Your task to perform on an android device: turn notification dots on Image 0: 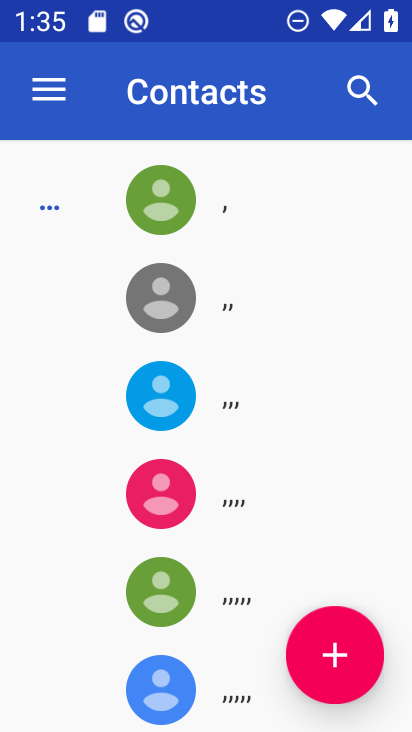
Step 0: press home button
Your task to perform on an android device: turn notification dots on Image 1: 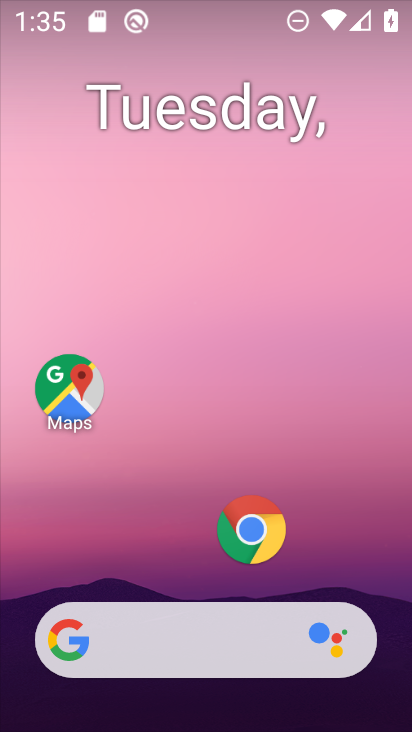
Step 1: drag from (198, 665) to (183, 36)
Your task to perform on an android device: turn notification dots on Image 2: 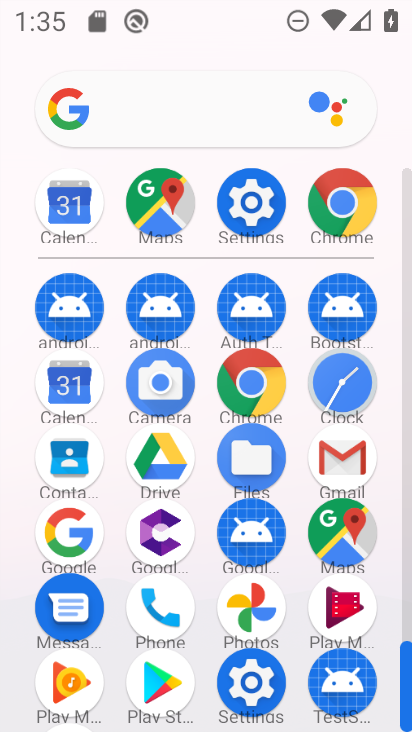
Step 2: click (255, 194)
Your task to perform on an android device: turn notification dots on Image 3: 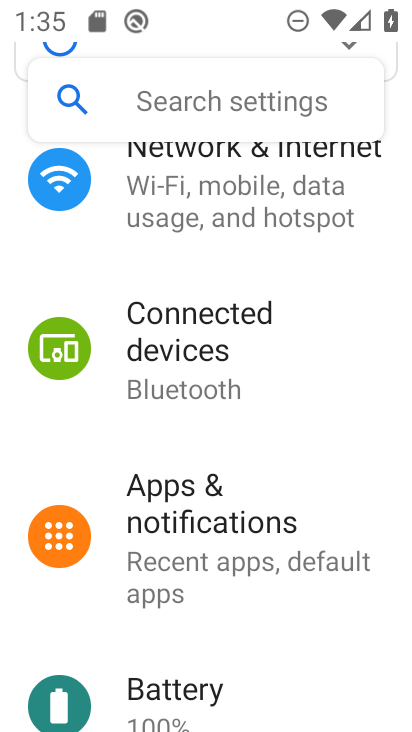
Step 3: click (168, 110)
Your task to perform on an android device: turn notification dots on Image 4: 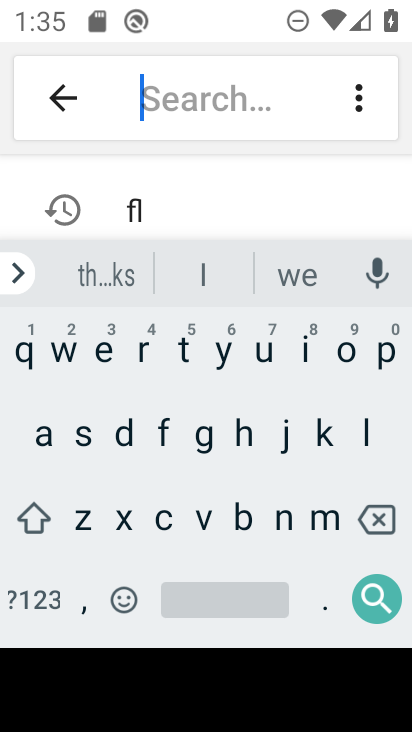
Step 4: click (120, 438)
Your task to perform on an android device: turn notification dots on Image 5: 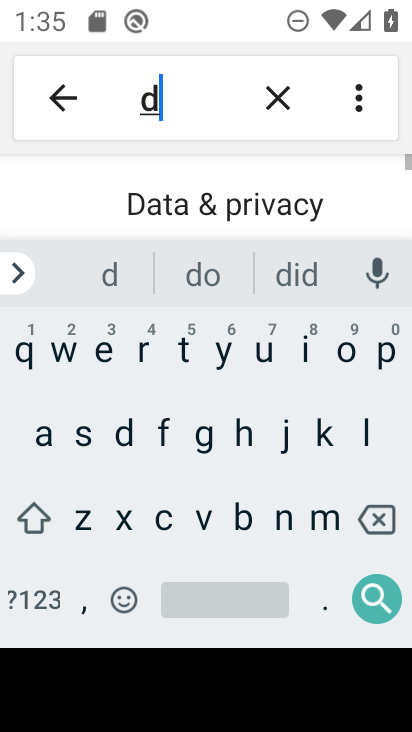
Step 5: click (340, 356)
Your task to perform on an android device: turn notification dots on Image 6: 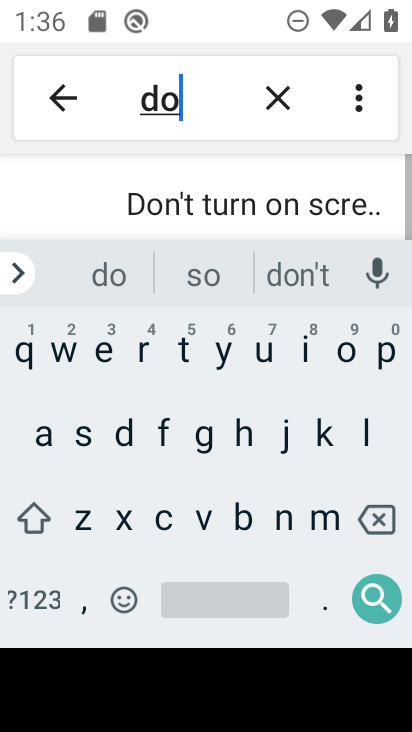
Step 6: click (191, 354)
Your task to perform on an android device: turn notification dots on Image 7: 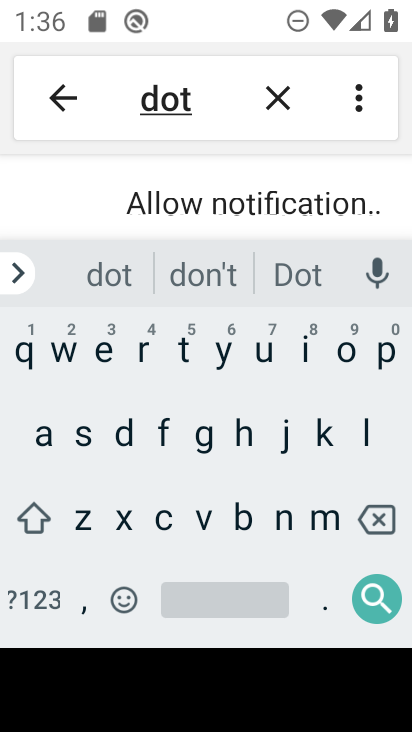
Step 7: click (211, 193)
Your task to perform on an android device: turn notification dots on Image 8: 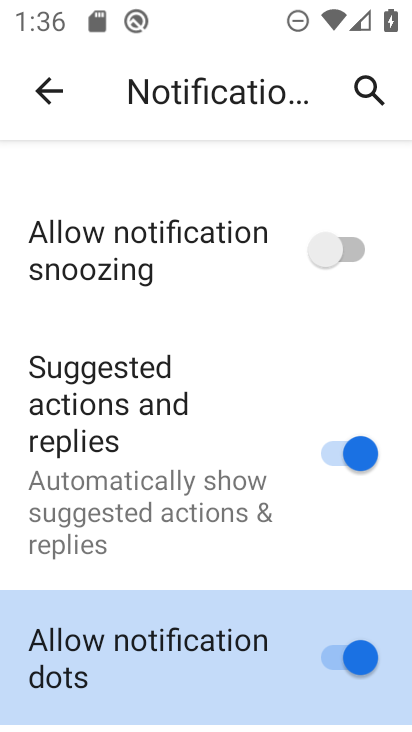
Step 8: task complete